Your task to perform on an android device: open chrome privacy settings Image 0: 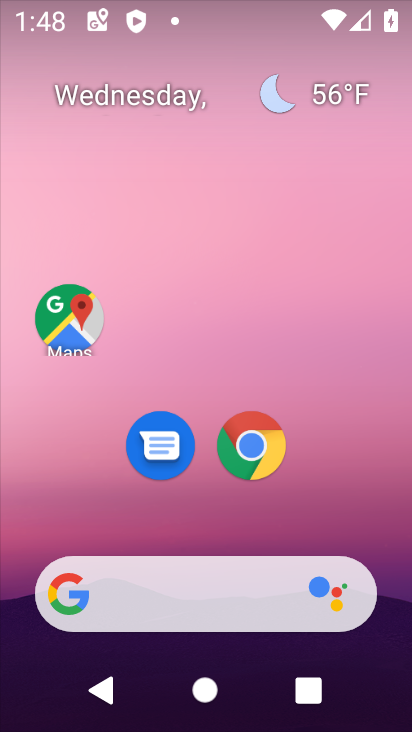
Step 0: click (243, 429)
Your task to perform on an android device: open chrome privacy settings Image 1: 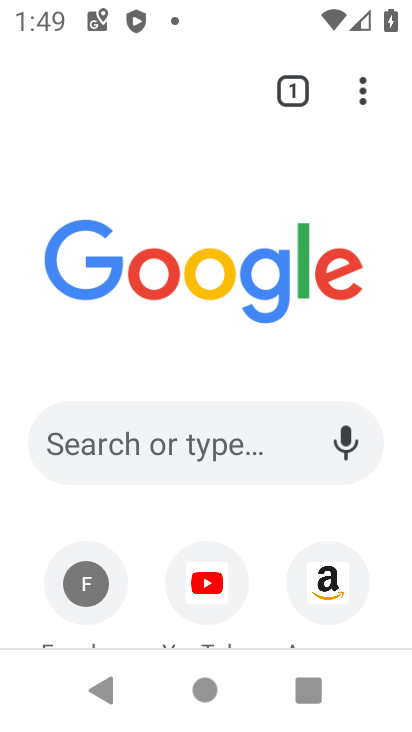
Step 1: drag from (364, 88) to (121, 467)
Your task to perform on an android device: open chrome privacy settings Image 2: 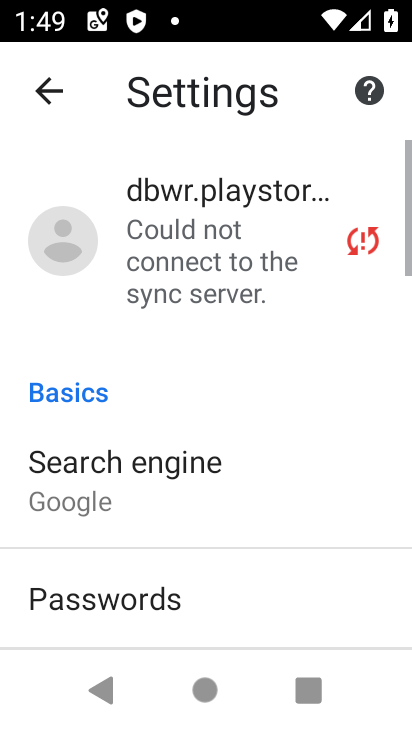
Step 2: drag from (143, 546) to (124, 0)
Your task to perform on an android device: open chrome privacy settings Image 3: 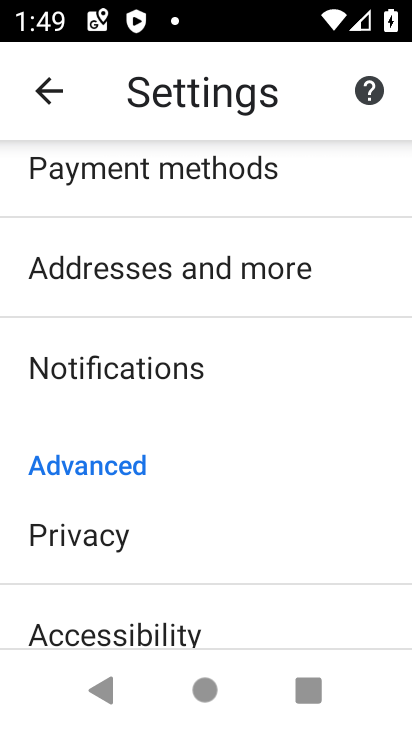
Step 3: click (170, 554)
Your task to perform on an android device: open chrome privacy settings Image 4: 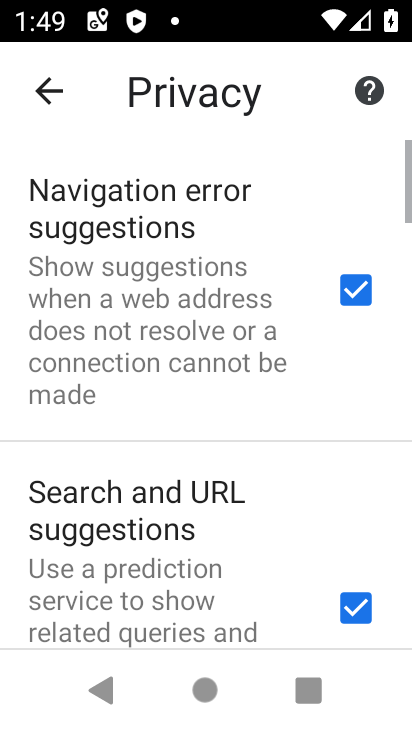
Step 4: task complete